Your task to perform on an android device: change alarm snooze length Image 0: 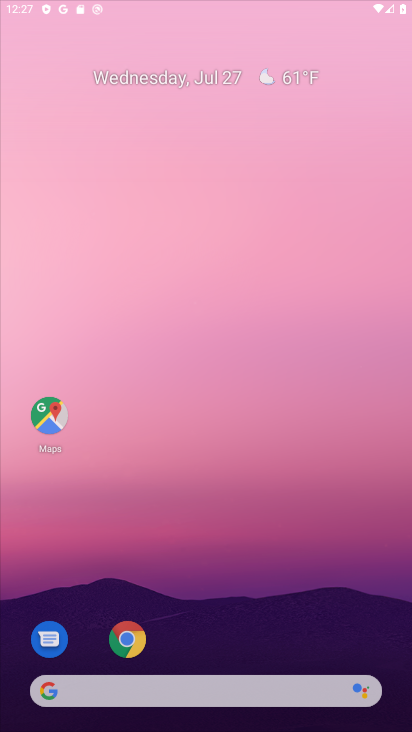
Step 0: click (267, 125)
Your task to perform on an android device: change alarm snooze length Image 1: 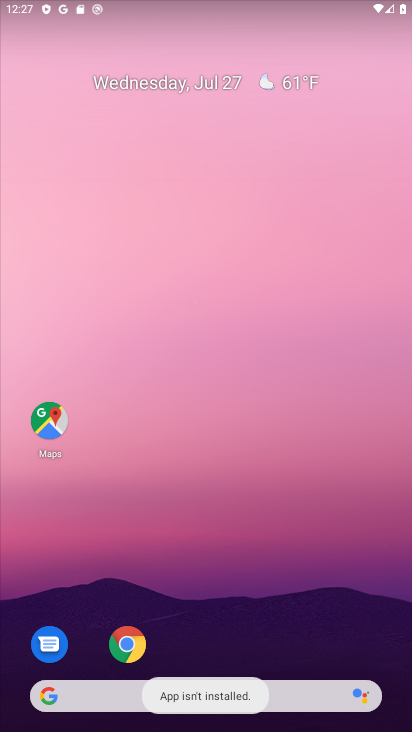
Step 1: drag from (188, 641) to (236, 105)
Your task to perform on an android device: change alarm snooze length Image 2: 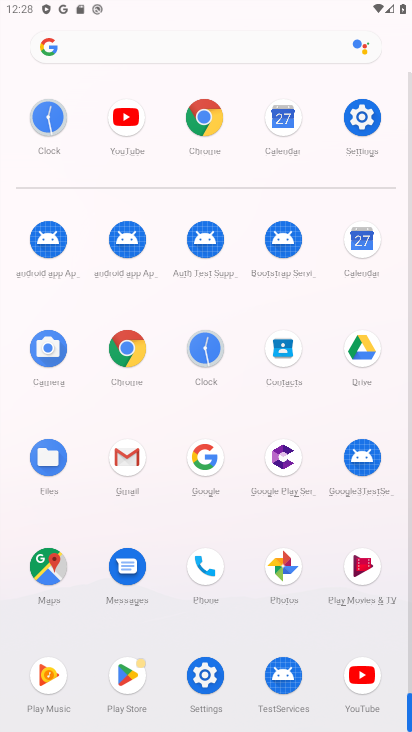
Step 2: click (195, 353)
Your task to perform on an android device: change alarm snooze length Image 3: 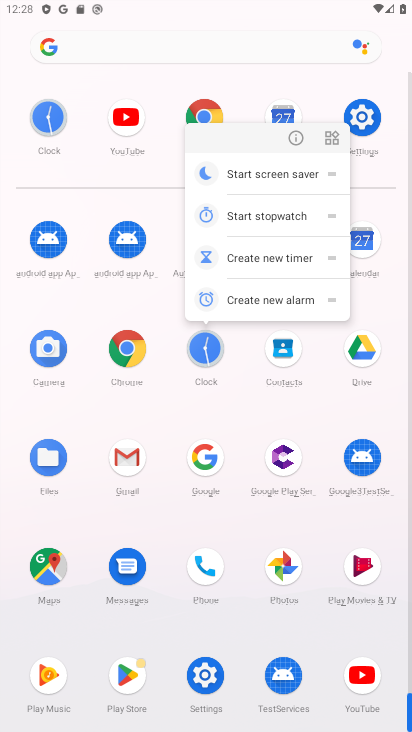
Step 3: click (297, 136)
Your task to perform on an android device: change alarm snooze length Image 4: 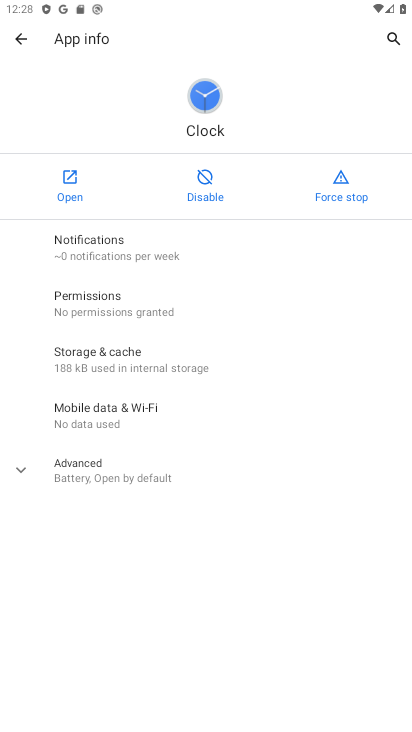
Step 4: drag from (249, 584) to (300, 184)
Your task to perform on an android device: change alarm snooze length Image 5: 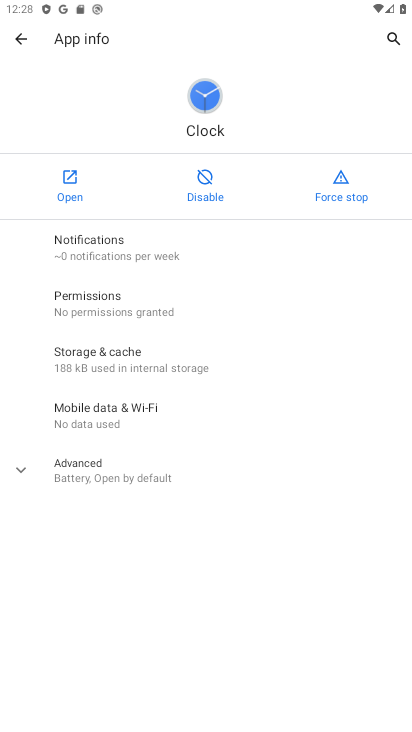
Step 5: click (74, 164)
Your task to perform on an android device: change alarm snooze length Image 6: 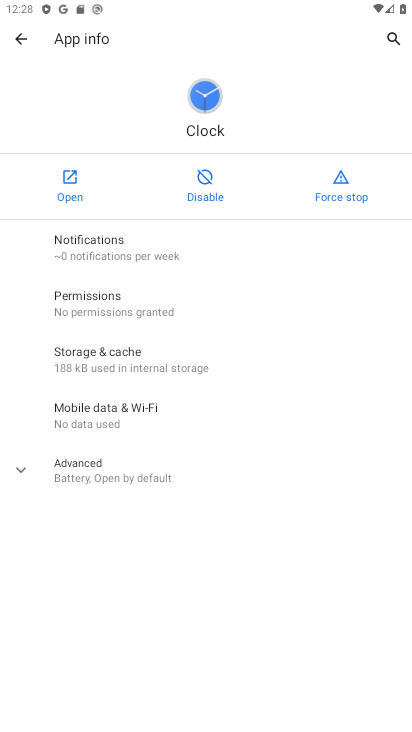
Step 6: click (74, 164)
Your task to perform on an android device: change alarm snooze length Image 7: 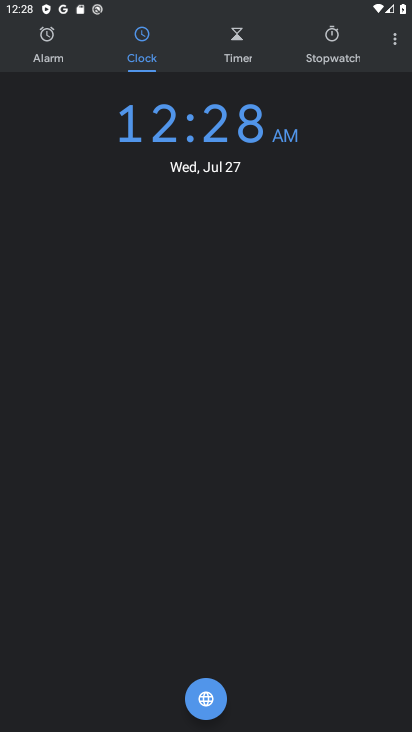
Step 7: drag from (390, 34) to (309, 86)
Your task to perform on an android device: change alarm snooze length Image 8: 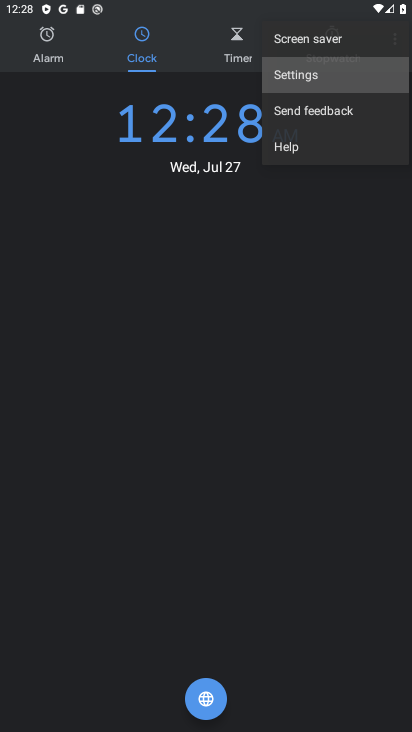
Step 8: click (309, 86)
Your task to perform on an android device: change alarm snooze length Image 9: 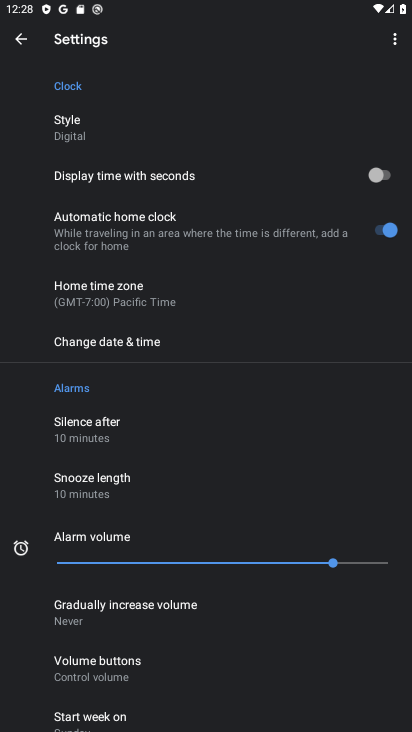
Step 9: click (118, 480)
Your task to perform on an android device: change alarm snooze length Image 10: 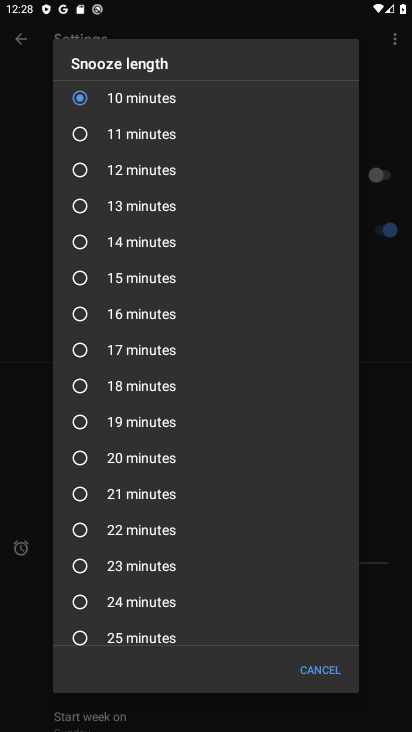
Step 10: drag from (181, 413) to (244, 93)
Your task to perform on an android device: change alarm snooze length Image 11: 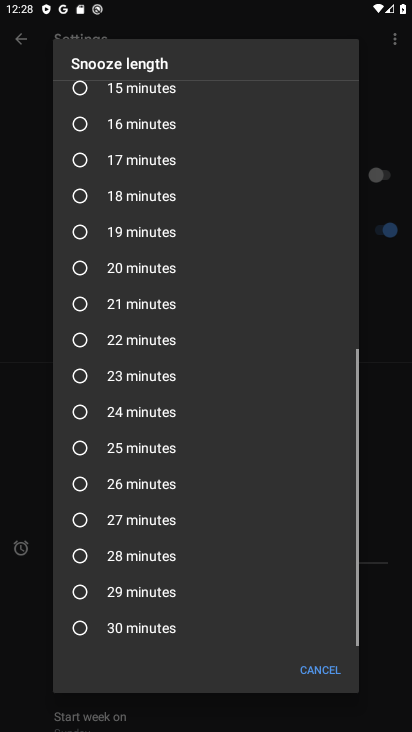
Step 11: drag from (184, 286) to (178, 633)
Your task to perform on an android device: change alarm snooze length Image 12: 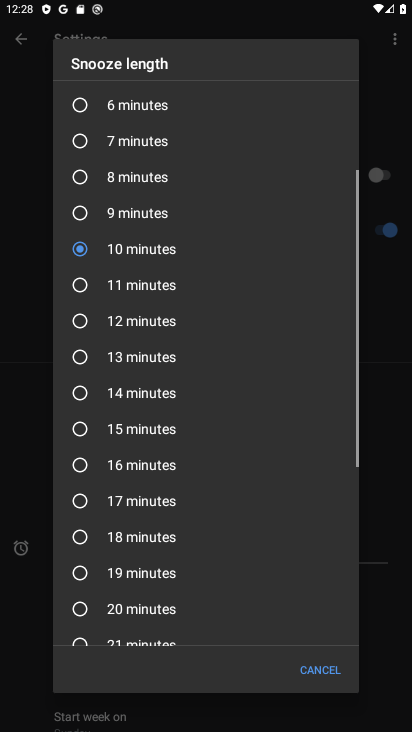
Step 12: drag from (119, 176) to (178, 552)
Your task to perform on an android device: change alarm snooze length Image 13: 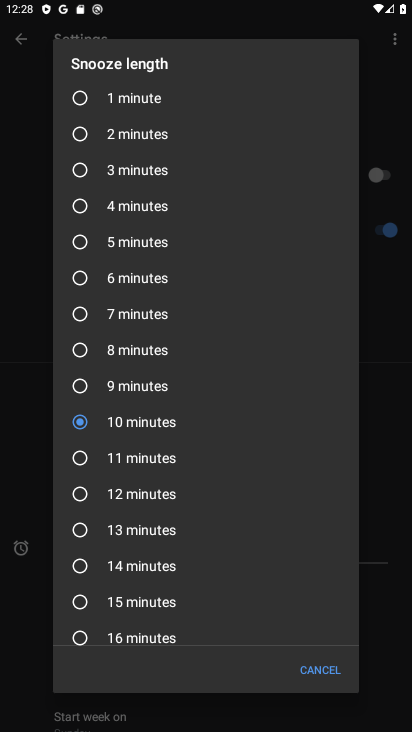
Step 13: click (88, 102)
Your task to perform on an android device: change alarm snooze length Image 14: 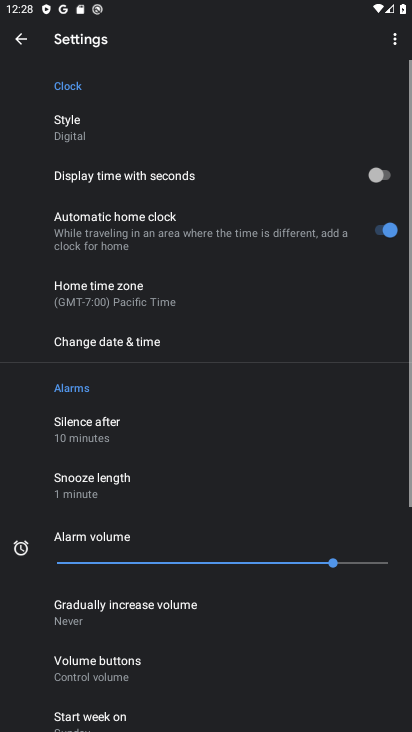
Step 14: task complete